Your task to perform on an android device: find photos in the google photos app Image 0: 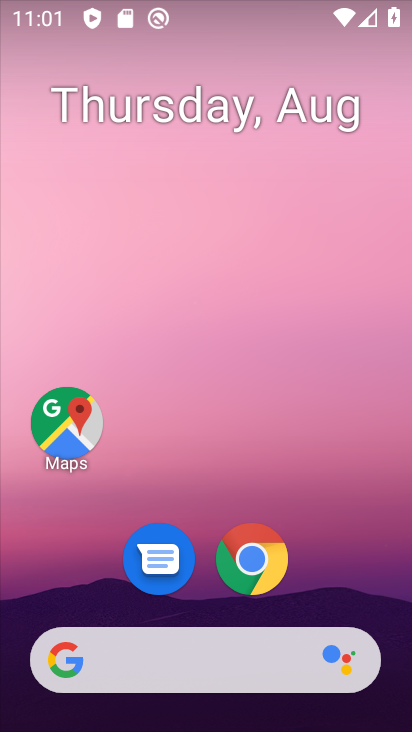
Step 0: drag from (341, 569) to (336, 137)
Your task to perform on an android device: find photos in the google photos app Image 1: 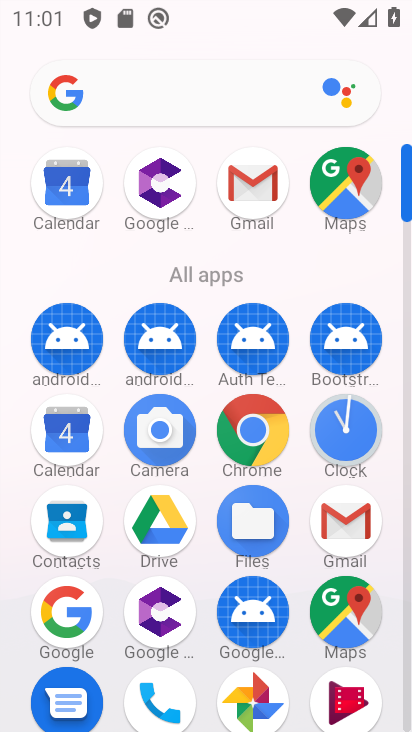
Step 1: click (249, 688)
Your task to perform on an android device: find photos in the google photos app Image 2: 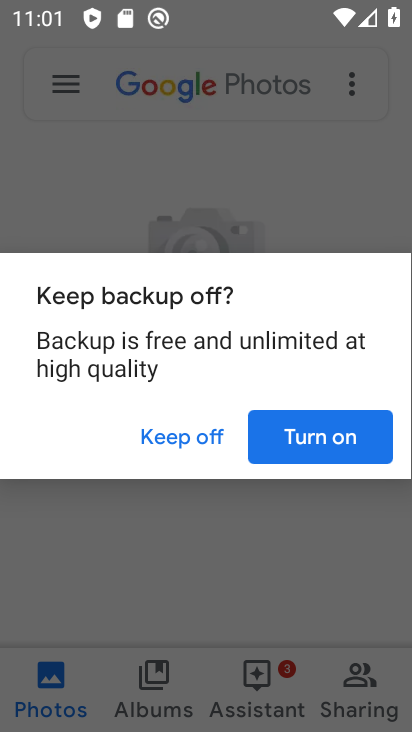
Step 2: click (302, 419)
Your task to perform on an android device: find photos in the google photos app Image 3: 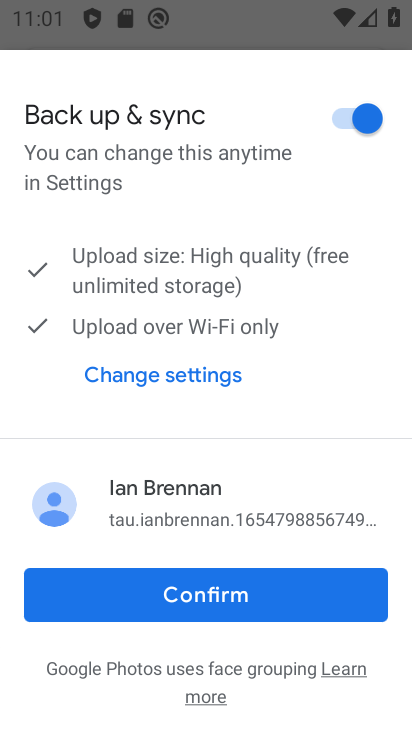
Step 3: click (185, 593)
Your task to perform on an android device: find photos in the google photos app Image 4: 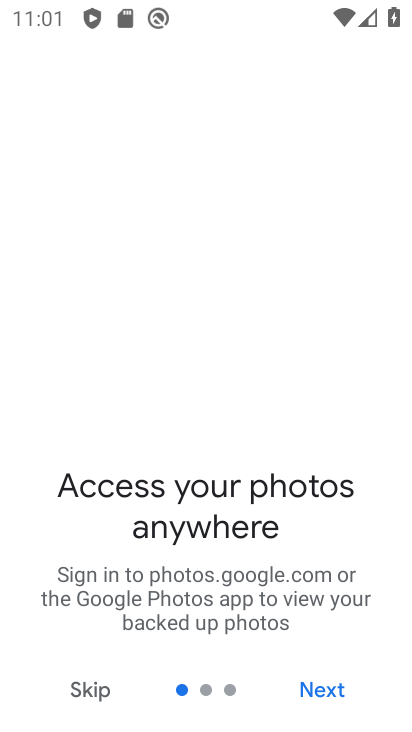
Step 4: click (319, 693)
Your task to perform on an android device: find photos in the google photos app Image 5: 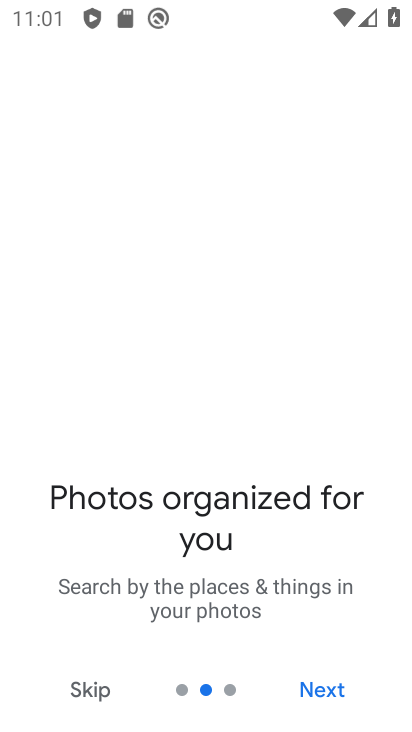
Step 5: click (319, 693)
Your task to perform on an android device: find photos in the google photos app Image 6: 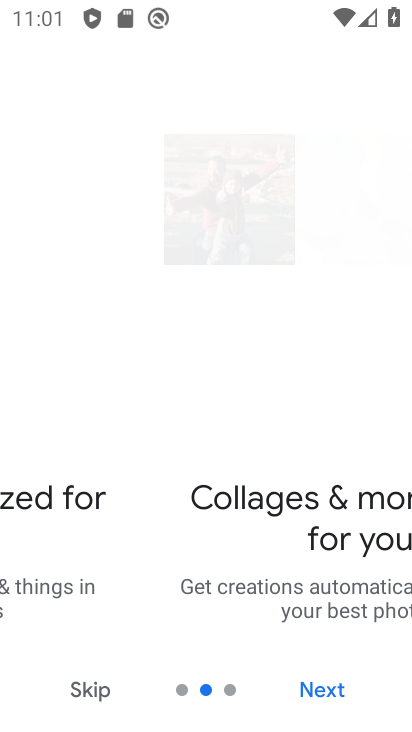
Step 6: click (319, 693)
Your task to perform on an android device: find photos in the google photos app Image 7: 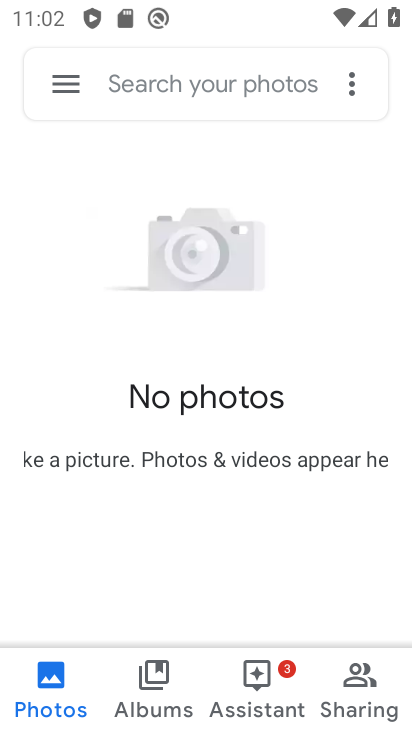
Step 7: task complete